Your task to perform on an android device: turn on wifi Image 0: 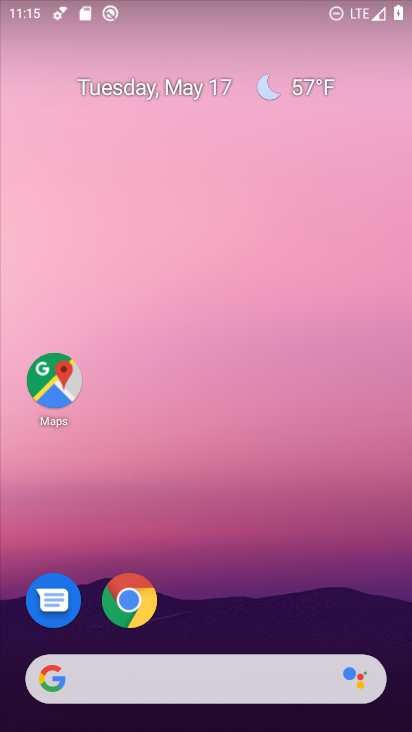
Step 0: drag from (324, 586) to (407, 232)
Your task to perform on an android device: turn on wifi Image 1: 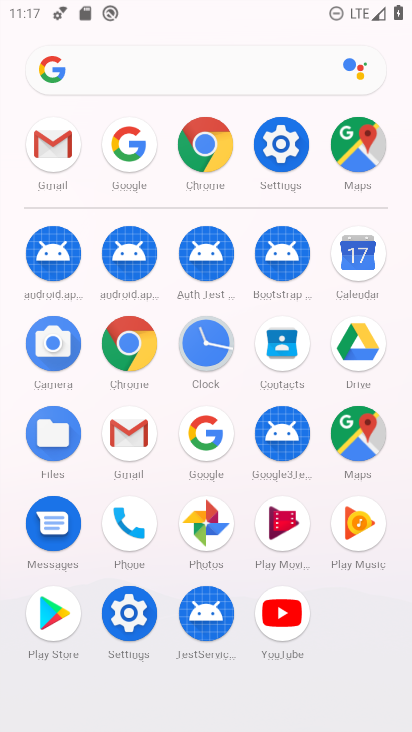
Step 1: click (274, 143)
Your task to perform on an android device: turn on wifi Image 2: 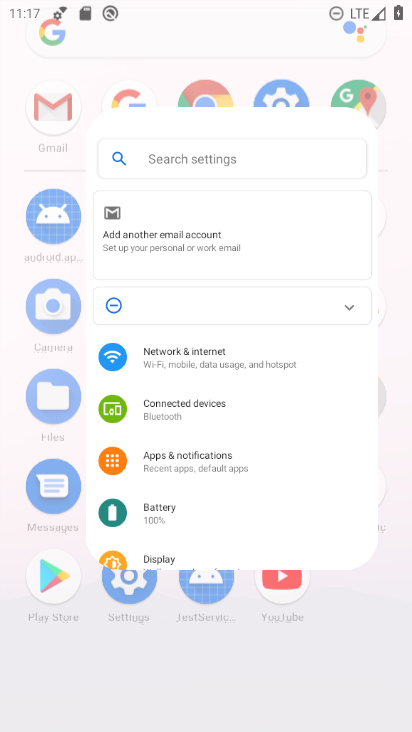
Step 2: click (274, 143)
Your task to perform on an android device: turn on wifi Image 3: 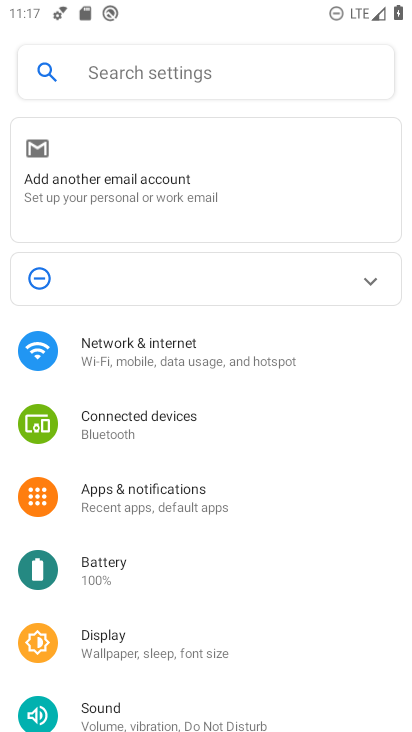
Step 3: click (109, 348)
Your task to perform on an android device: turn on wifi Image 4: 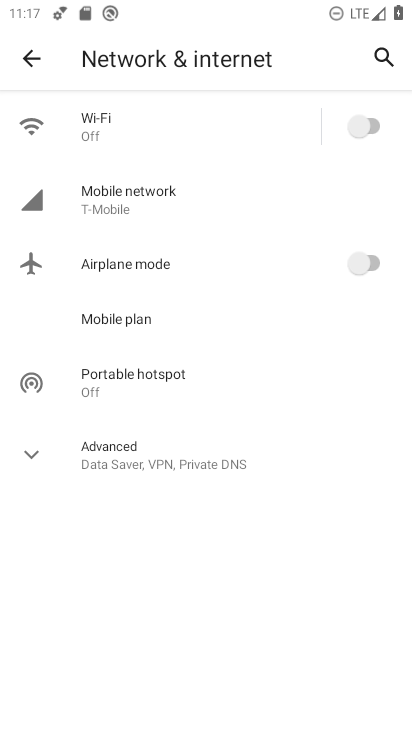
Step 4: click (357, 122)
Your task to perform on an android device: turn on wifi Image 5: 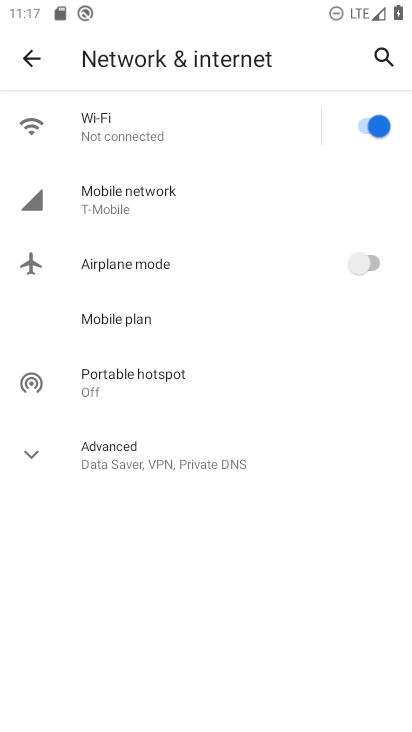
Step 5: task complete